Your task to perform on an android device: What's the weather? Image 0: 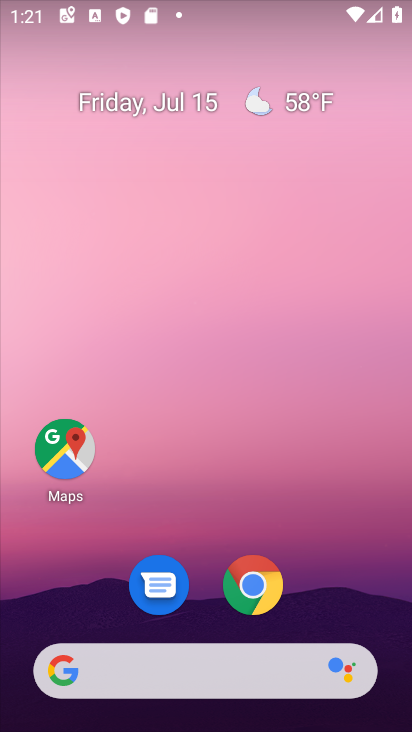
Step 0: click (276, 681)
Your task to perform on an android device: What's the weather? Image 1: 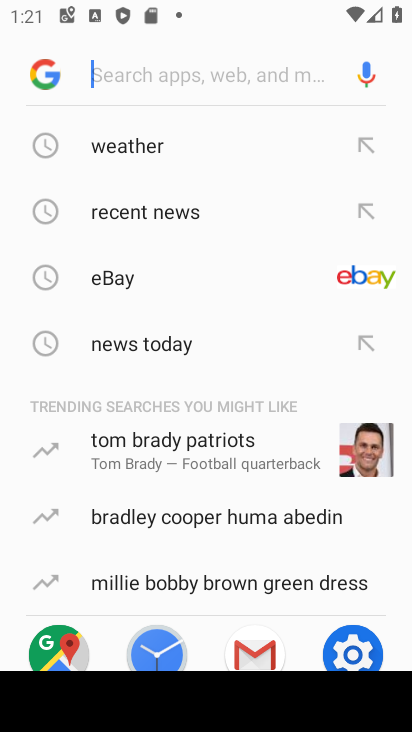
Step 1: click (95, 139)
Your task to perform on an android device: What's the weather? Image 2: 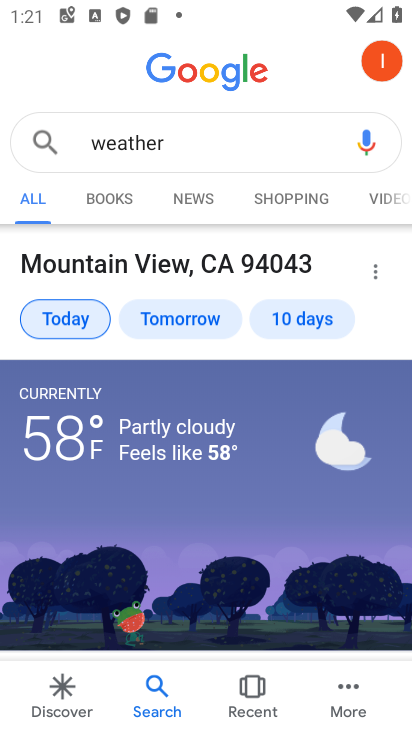
Step 2: click (62, 305)
Your task to perform on an android device: What's the weather? Image 3: 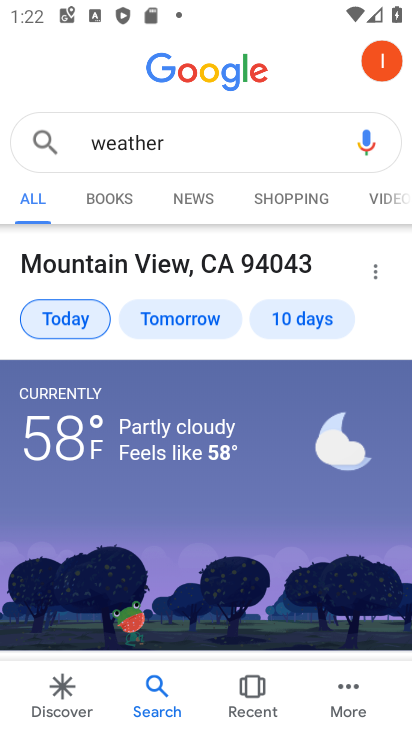
Step 3: task complete